Your task to perform on an android device: turn on sleep mode Image 0: 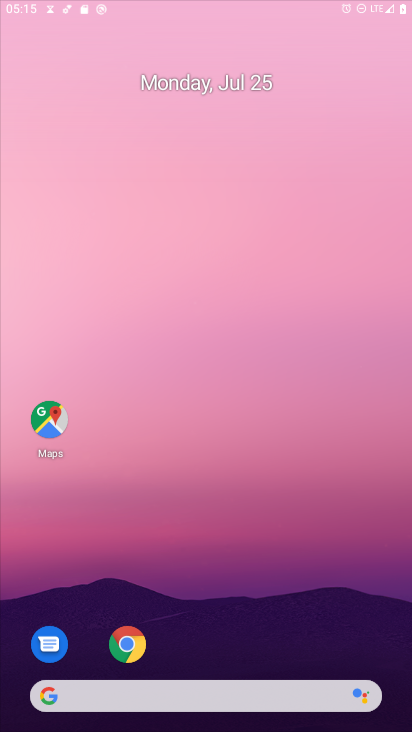
Step 0: press home button
Your task to perform on an android device: turn on sleep mode Image 1: 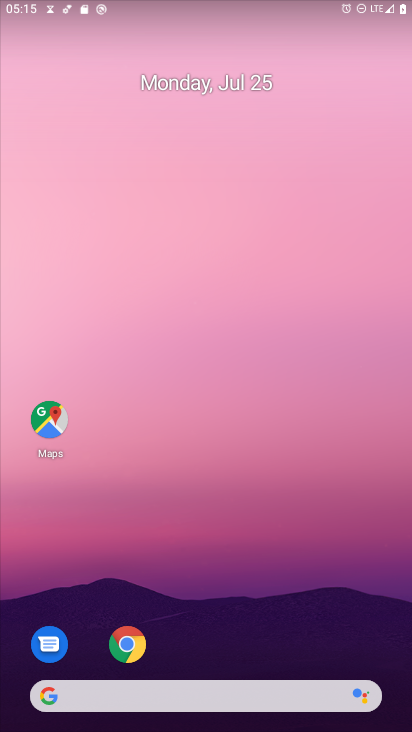
Step 1: drag from (305, 617) to (273, 94)
Your task to perform on an android device: turn on sleep mode Image 2: 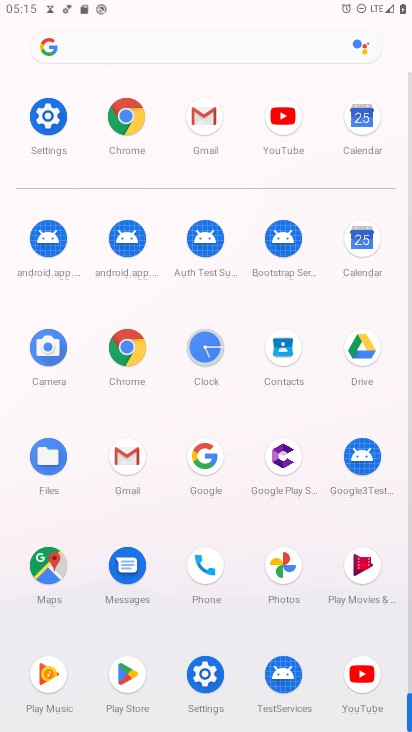
Step 2: click (50, 109)
Your task to perform on an android device: turn on sleep mode Image 3: 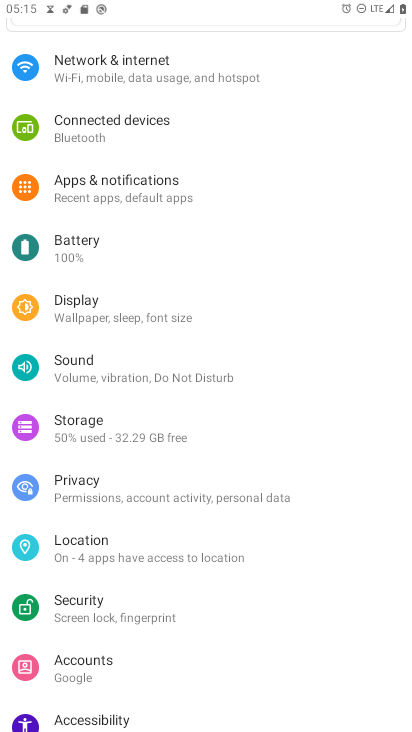
Step 3: click (68, 305)
Your task to perform on an android device: turn on sleep mode Image 4: 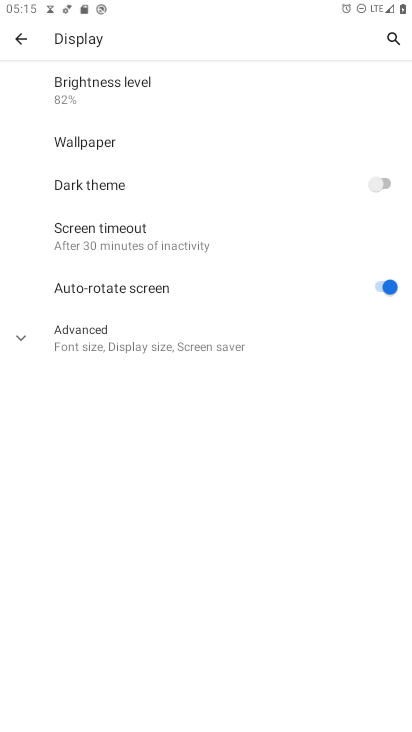
Step 4: task complete